Your task to perform on an android device: Open settings on Google Maps Image 0: 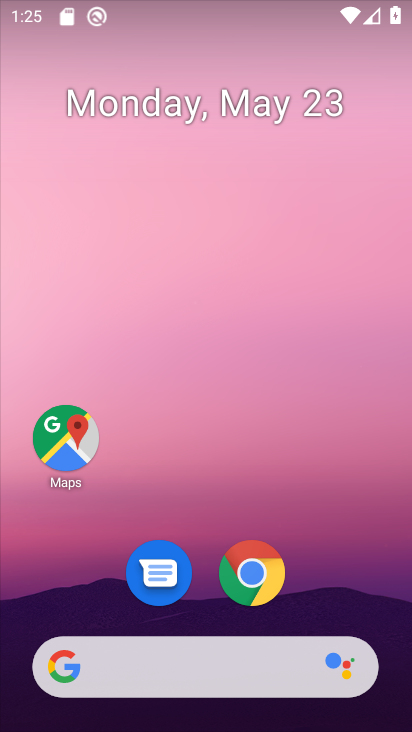
Step 0: click (331, 582)
Your task to perform on an android device: Open settings on Google Maps Image 1: 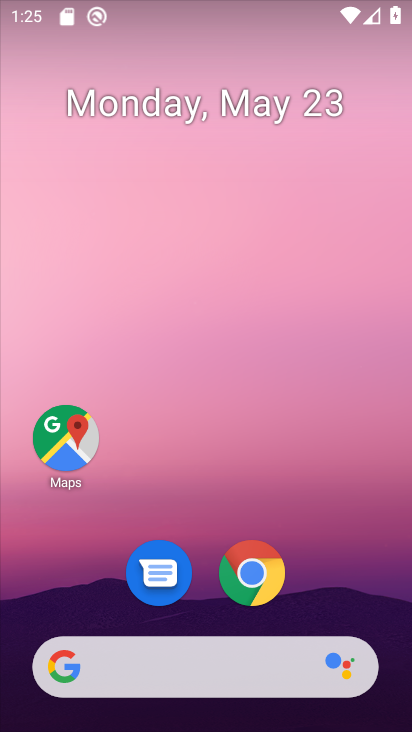
Step 1: click (73, 430)
Your task to perform on an android device: Open settings on Google Maps Image 2: 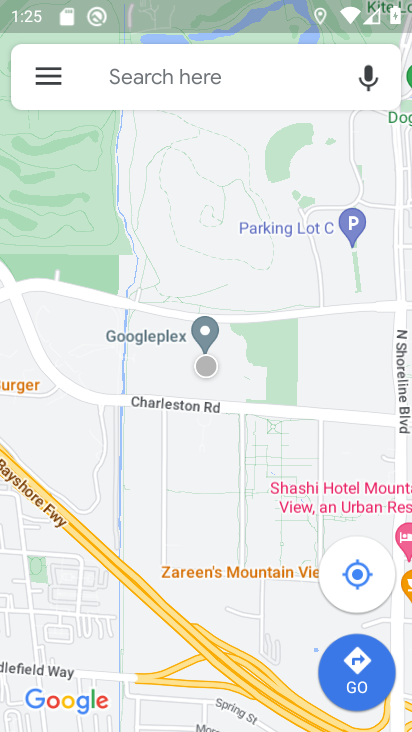
Step 2: click (54, 79)
Your task to perform on an android device: Open settings on Google Maps Image 3: 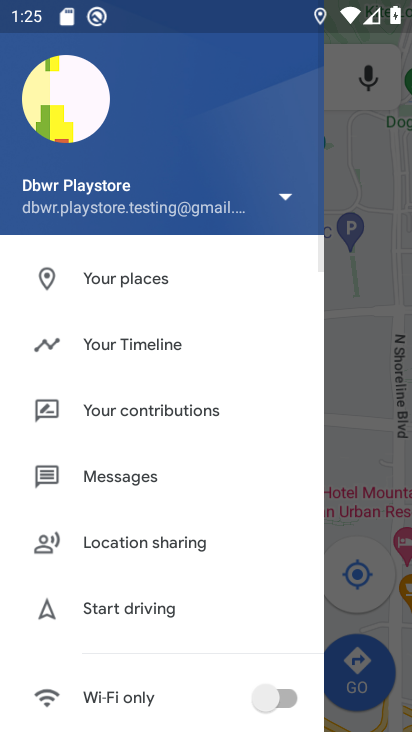
Step 3: drag from (150, 627) to (209, 48)
Your task to perform on an android device: Open settings on Google Maps Image 4: 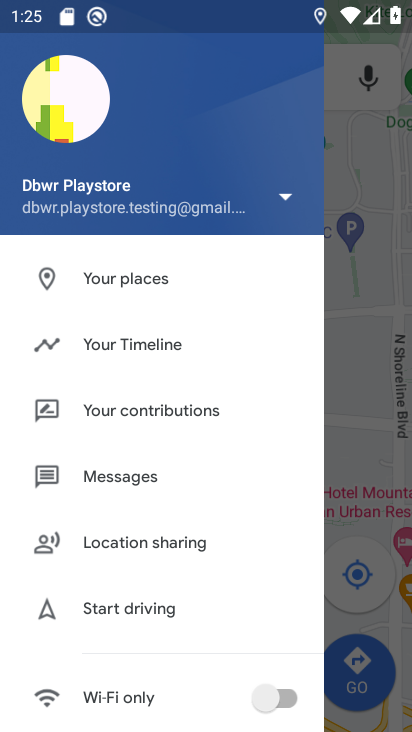
Step 4: drag from (204, 637) to (151, 56)
Your task to perform on an android device: Open settings on Google Maps Image 5: 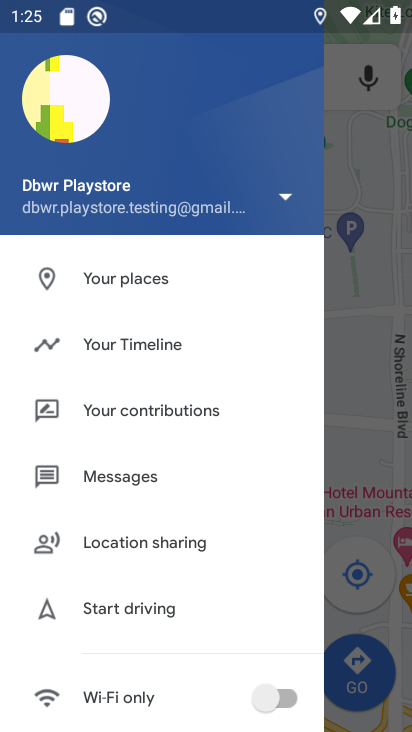
Step 5: drag from (144, 600) to (172, 58)
Your task to perform on an android device: Open settings on Google Maps Image 6: 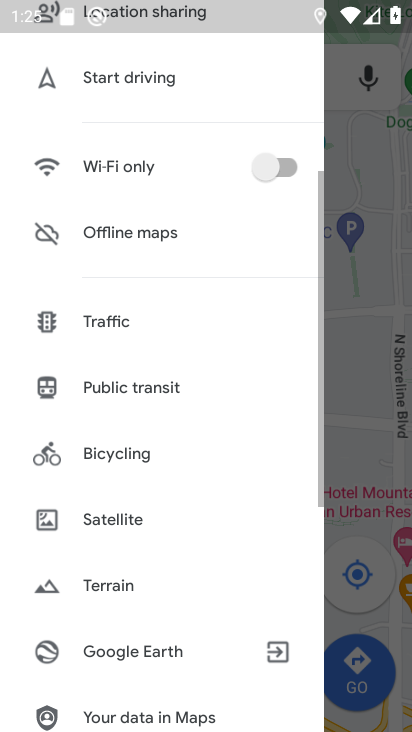
Step 6: drag from (169, 646) to (196, 114)
Your task to perform on an android device: Open settings on Google Maps Image 7: 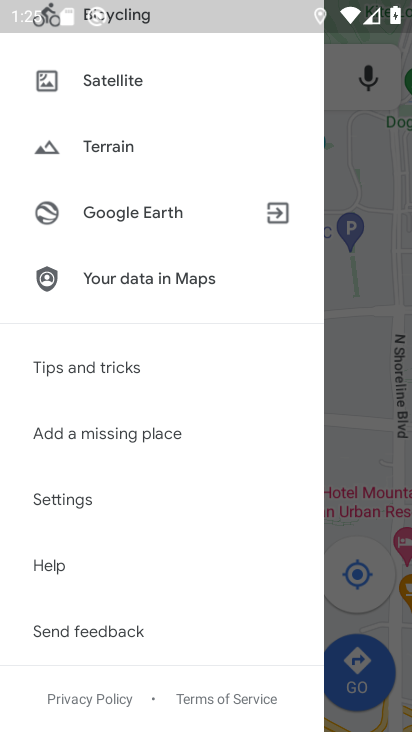
Step 7: click (64, 502)
Your task to perform on an android device: Open settings on Google Maps Image 8: 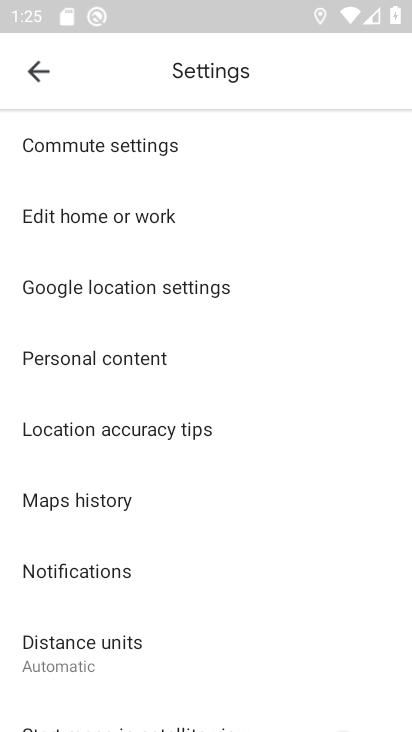
Step 8: task complete